Your task to perform on an android device: What is the recent news? Image 0: 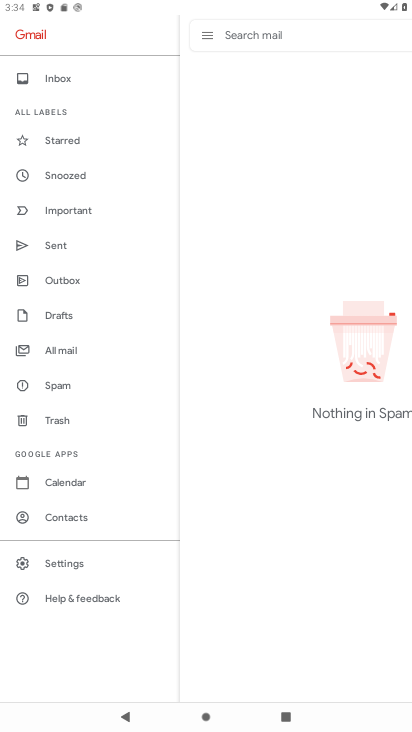
Step 0: press home button
Your task to perform on an android device: What is the recent news? Image 1: 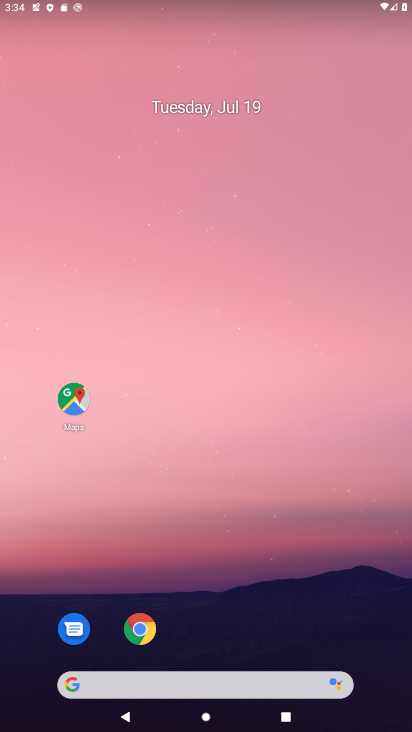
Step 1: drag from (157, 682) to (272, 194)
Your task to perform on an android device: What is the recent news? Image 2: 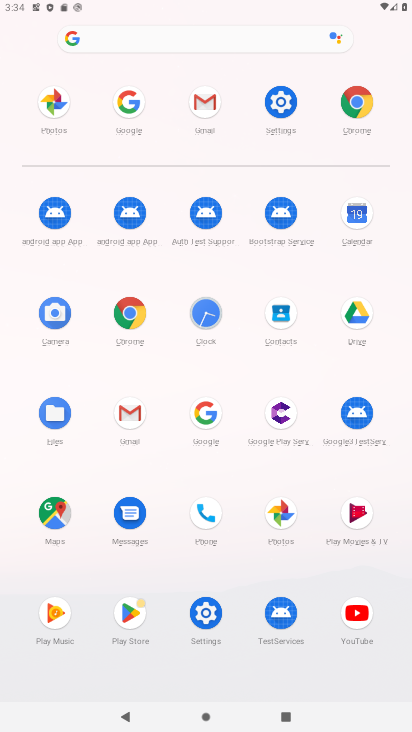
Step 2: click (189, 408)
Your task to perform on an android device: What is the recent news? Image 3: 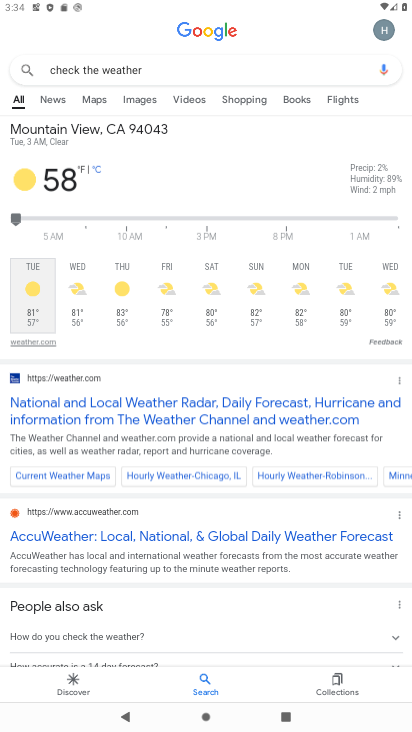
Step 3: click (131, 69)
Your task to perform on an android device: What is the recent news? Image 4: 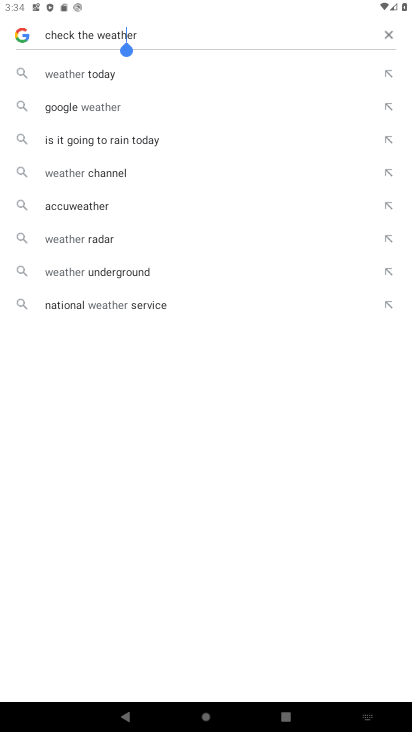
Step 4: click (386, 35)
Your task to perform on an android device: What is the recent news? Image 5: 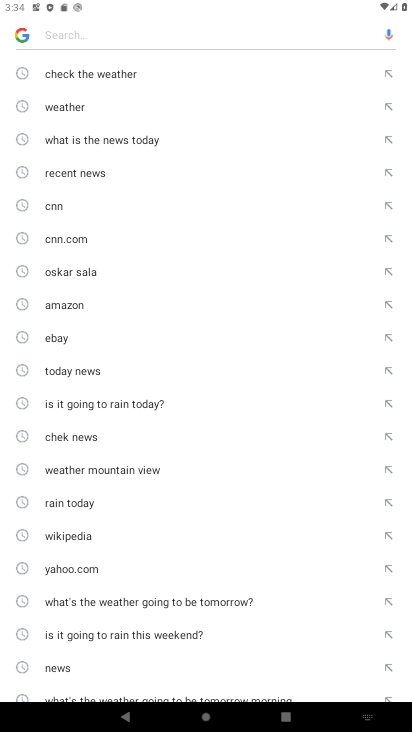
Step 5: click (71, 178)
Your task to perform on an android device: What is the recent news? Image 6: 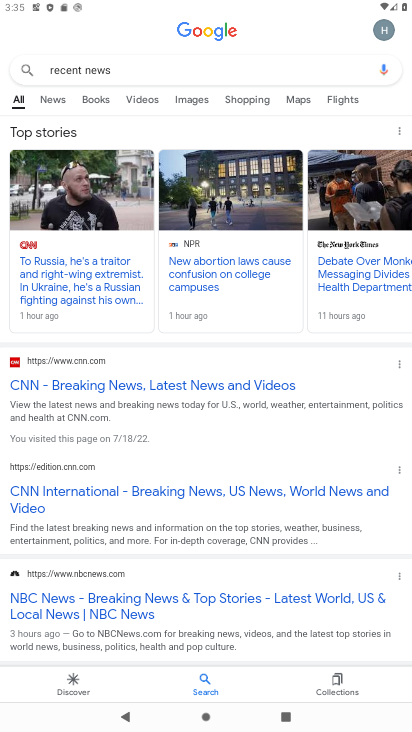
Step 6: task complete